Your task to perform on an android device: Open Youtube and go to "Your channel" Image 0: 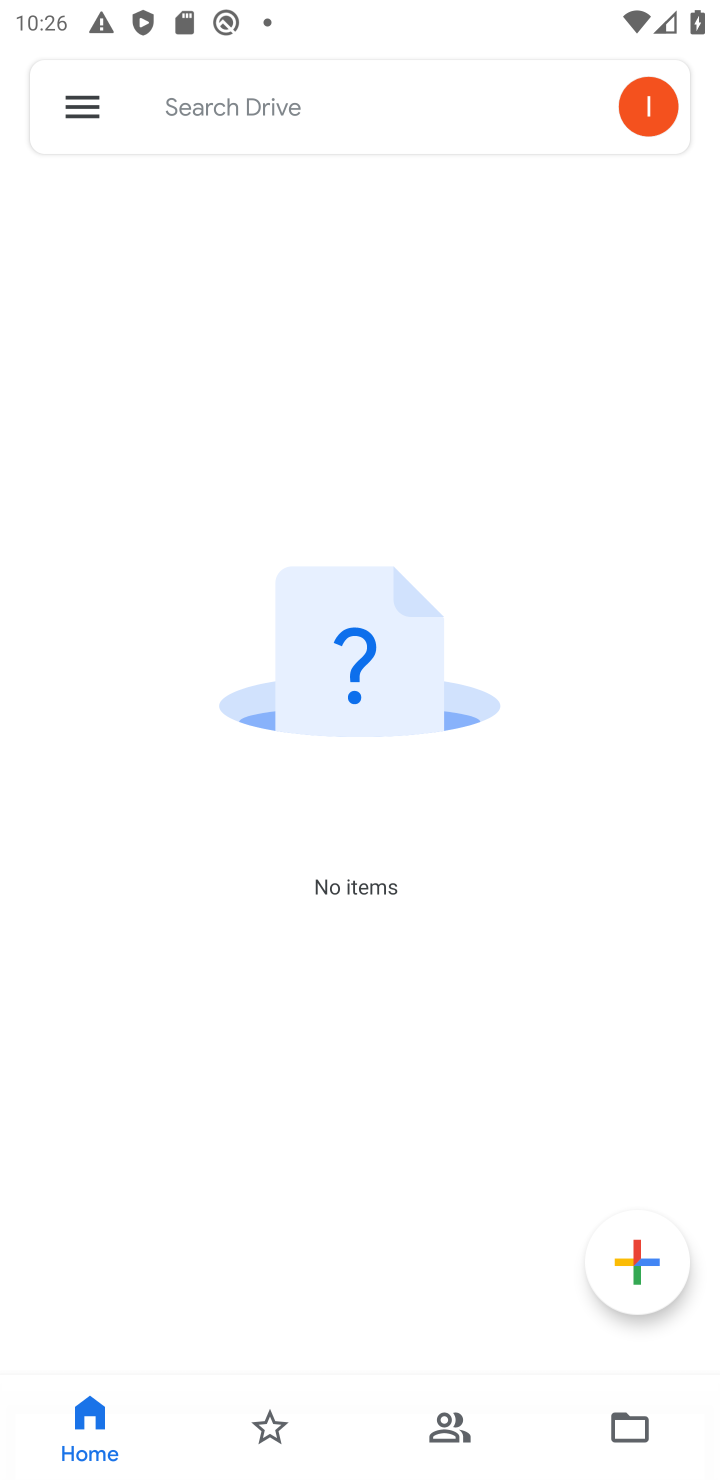
Step 0: press home button
Your task to perform on an android device: Open Youtube and go to "Your channel" Image 1: 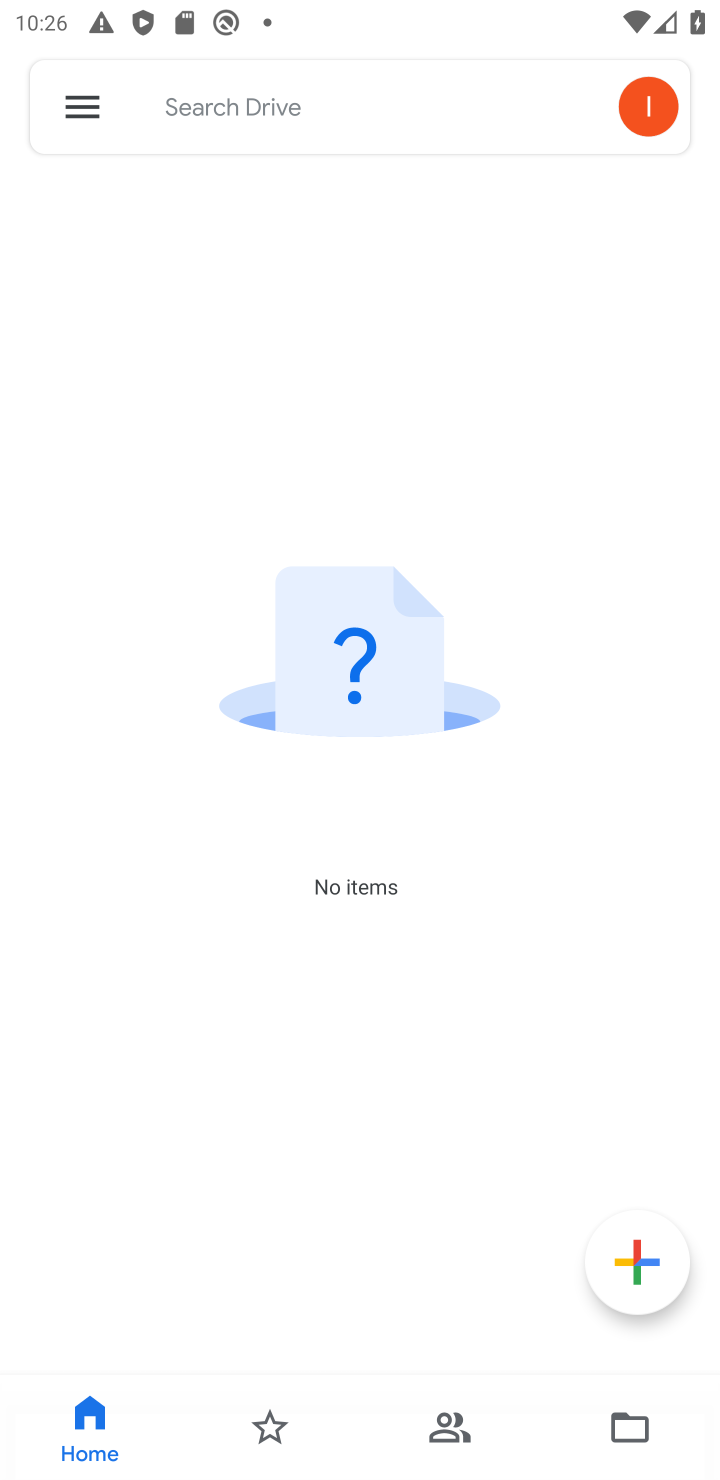
Step 1: press home button
Your task to perform on an android device: Open Youtube and go to "Your channel" Image 2: 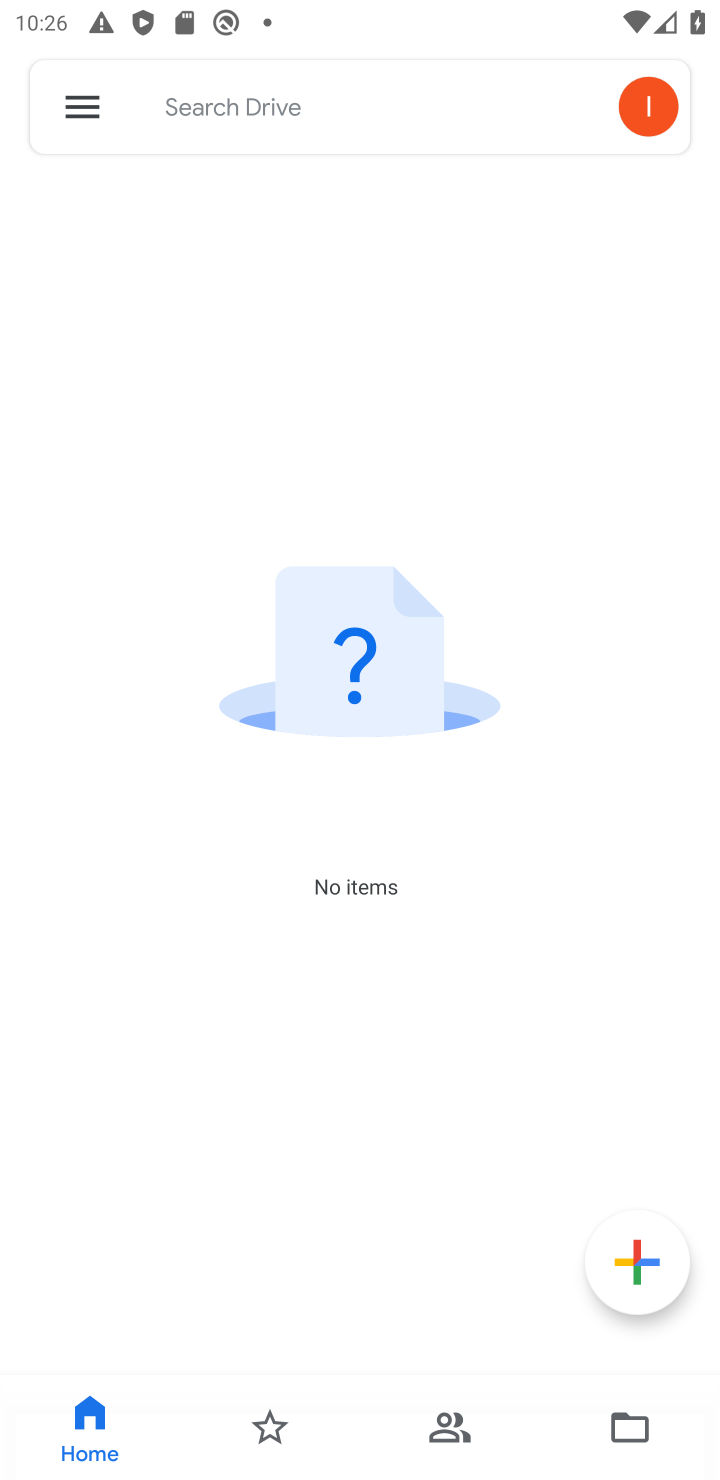
Step 2: drag from (529, 416) to (531, 283)
Your task to perform on an android device: Open Youtube and go to "Your channel" Image 3: 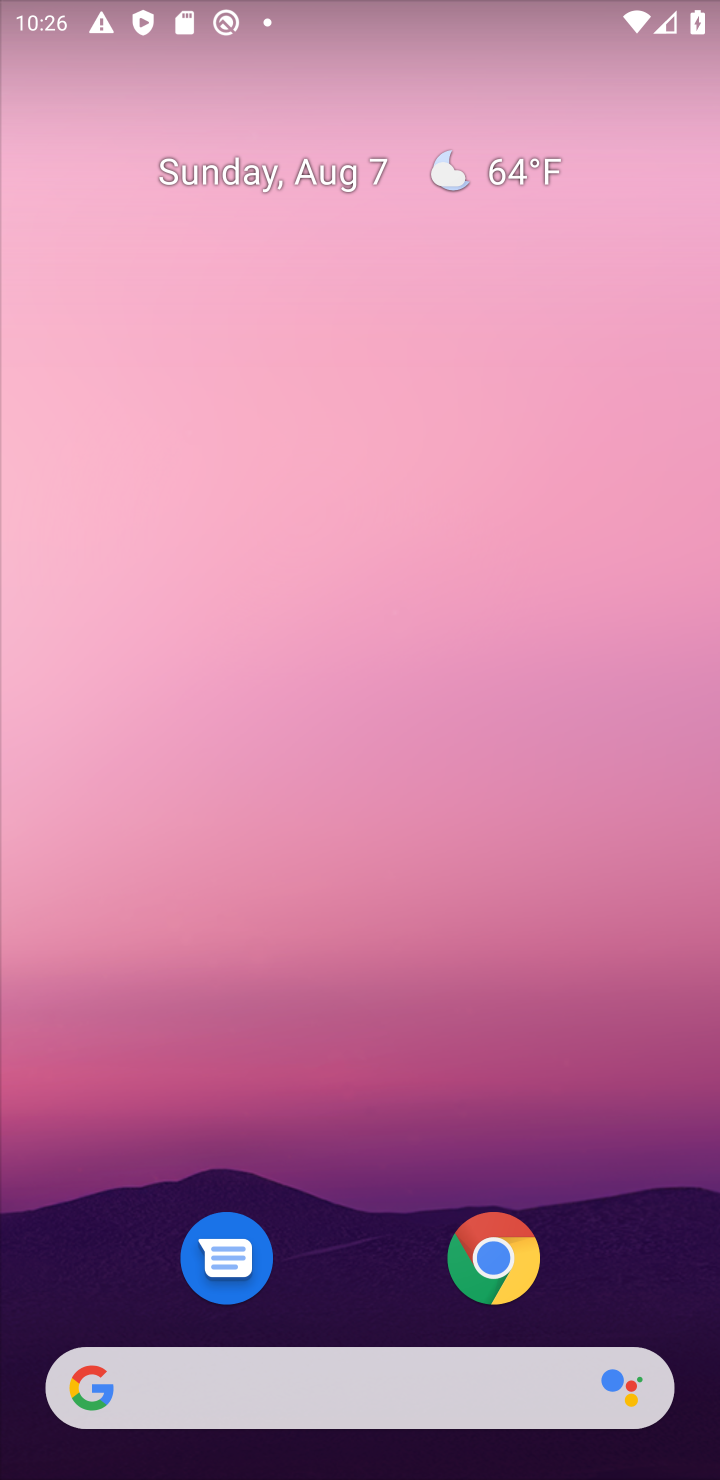
Step 3: drag from (414, 1321) to (470, 139)
Your task to perform on an android device: Open Youtube and go to "Your channel" Image 4: 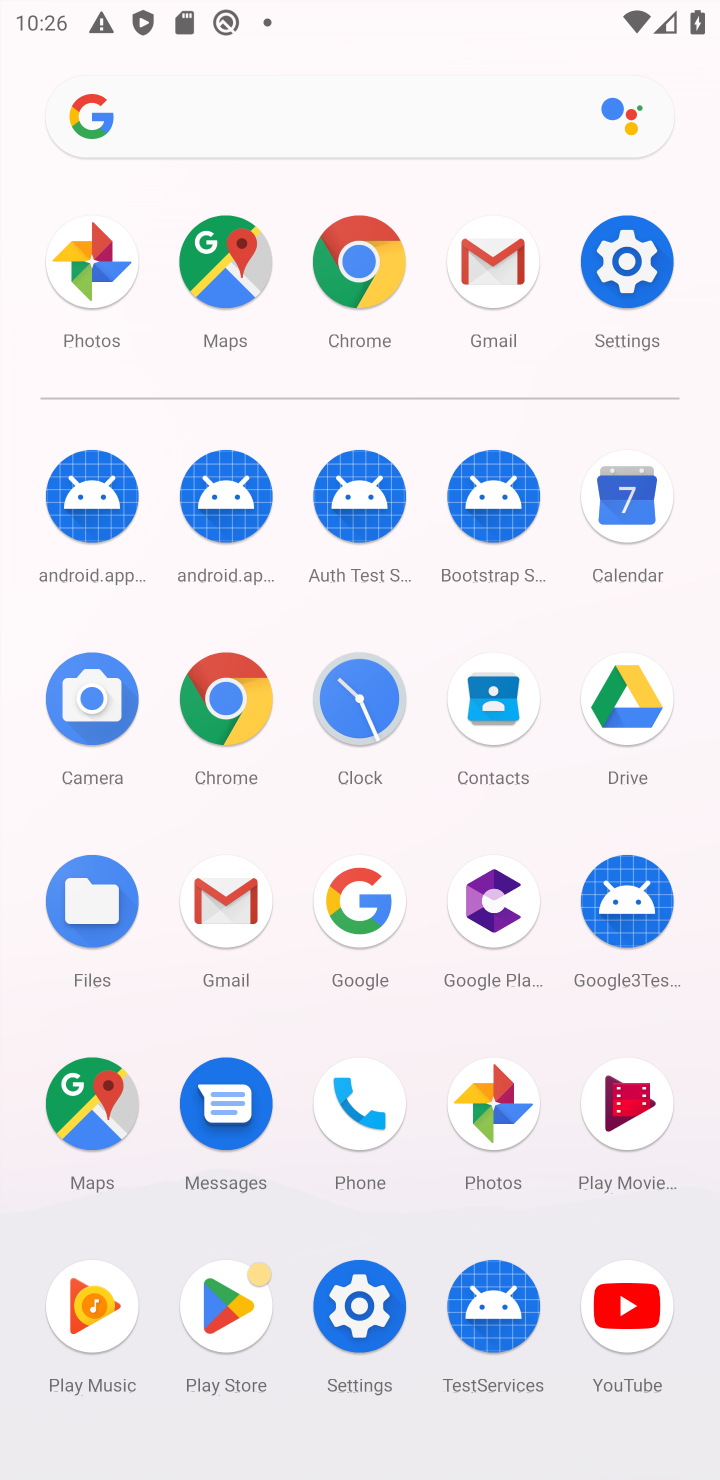
Step 4: click (645, 1338)
Your task to perform on an android device: Open Youtube and go to "Your channel" Image 5: 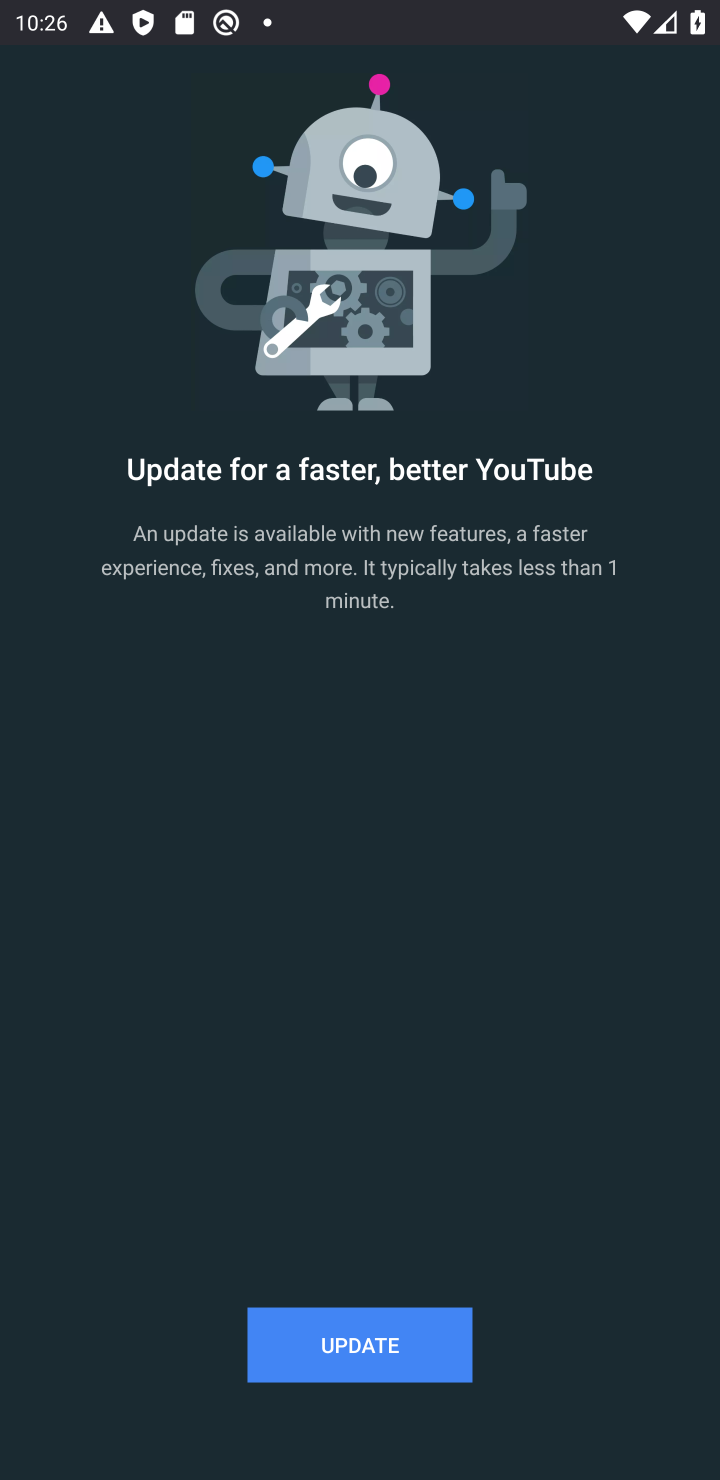
Step 5: click (348, 1364)
Your task to perform on an android device: Open Youtube and go to "Your channel" Image 6: 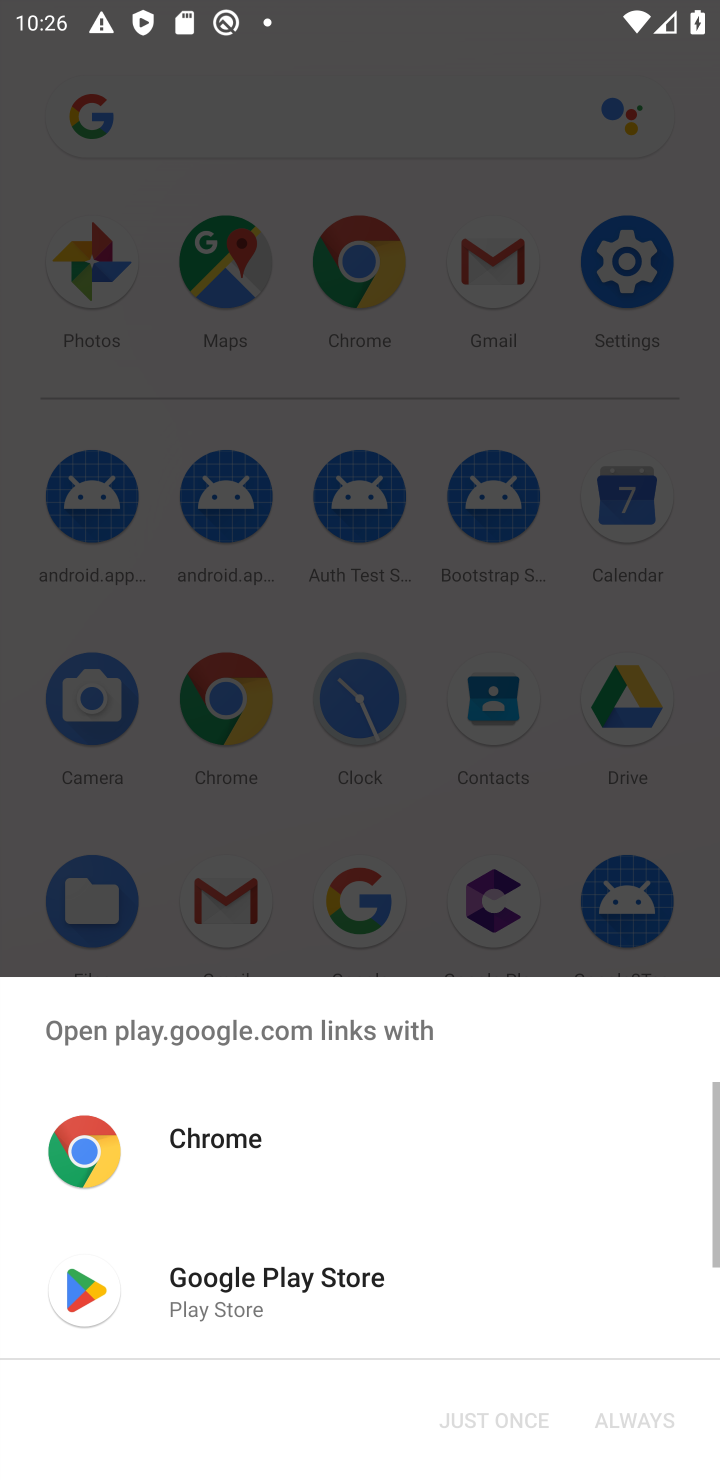
Step 6: click (271, 1266)
Your task to perform on an android device: Open Youtube and go to "Your channel" Image 7: 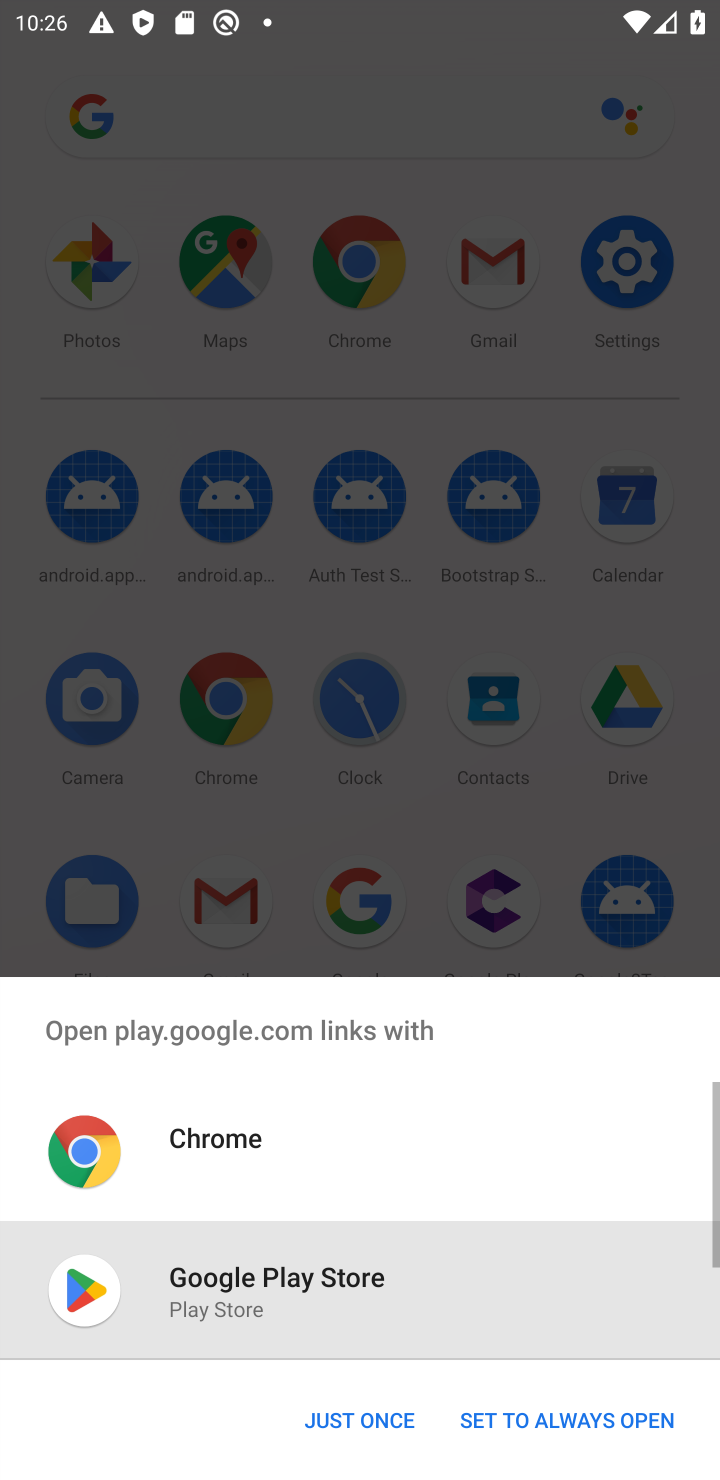
Step 7: click (356, 1425)
Your task to perform on an android device: Open Youtube and go to "Your channel" Image 8: 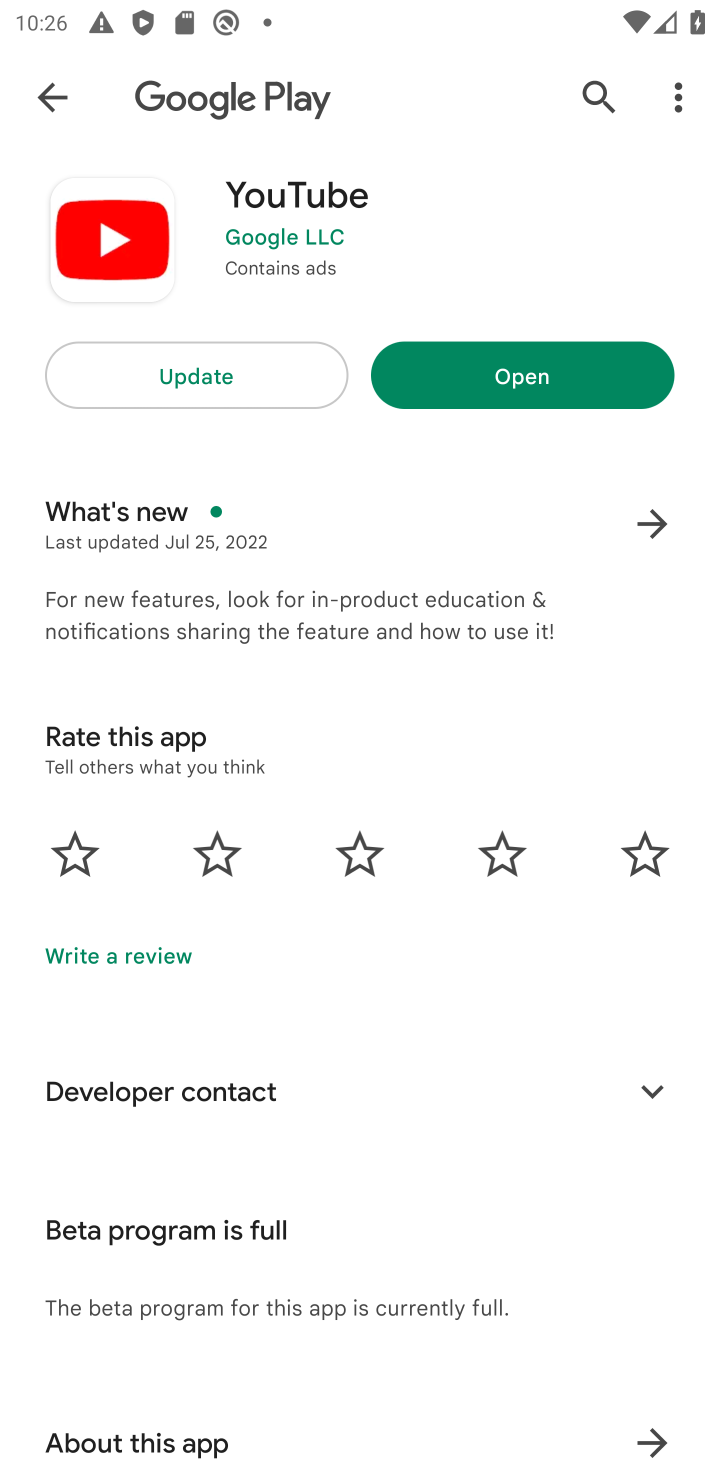
Step 8: drag from (545, 376) to (677, 869)
Your task to perform on an android device: Open Youtube and go to "Your channel" Image 9: 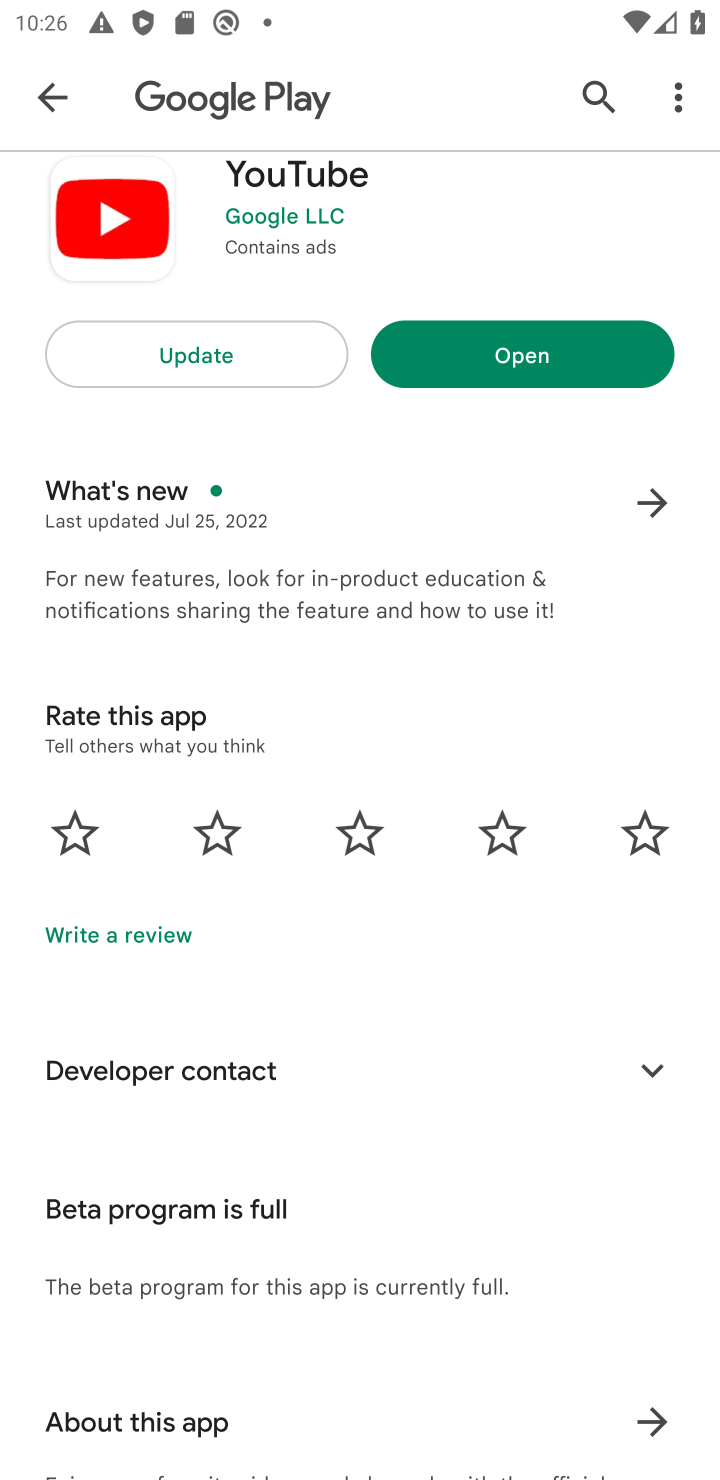
Step 9: click (163, 386)
Your task to perform on an android device: Open Youtube and go to "Your channel" Image 10: 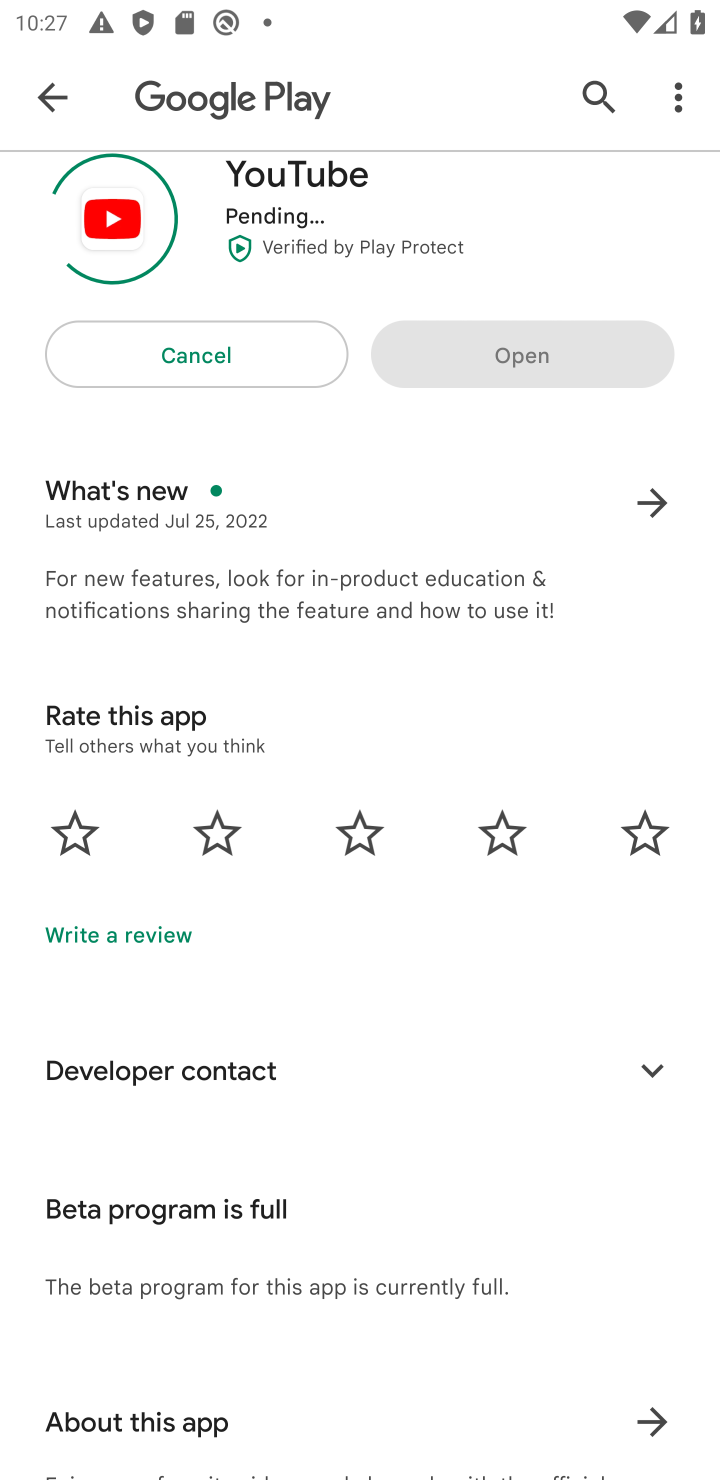
Step 10: click (577, 351)
Your task to perform on an android device: Open Youtube and go to "Your channel" Image 11: 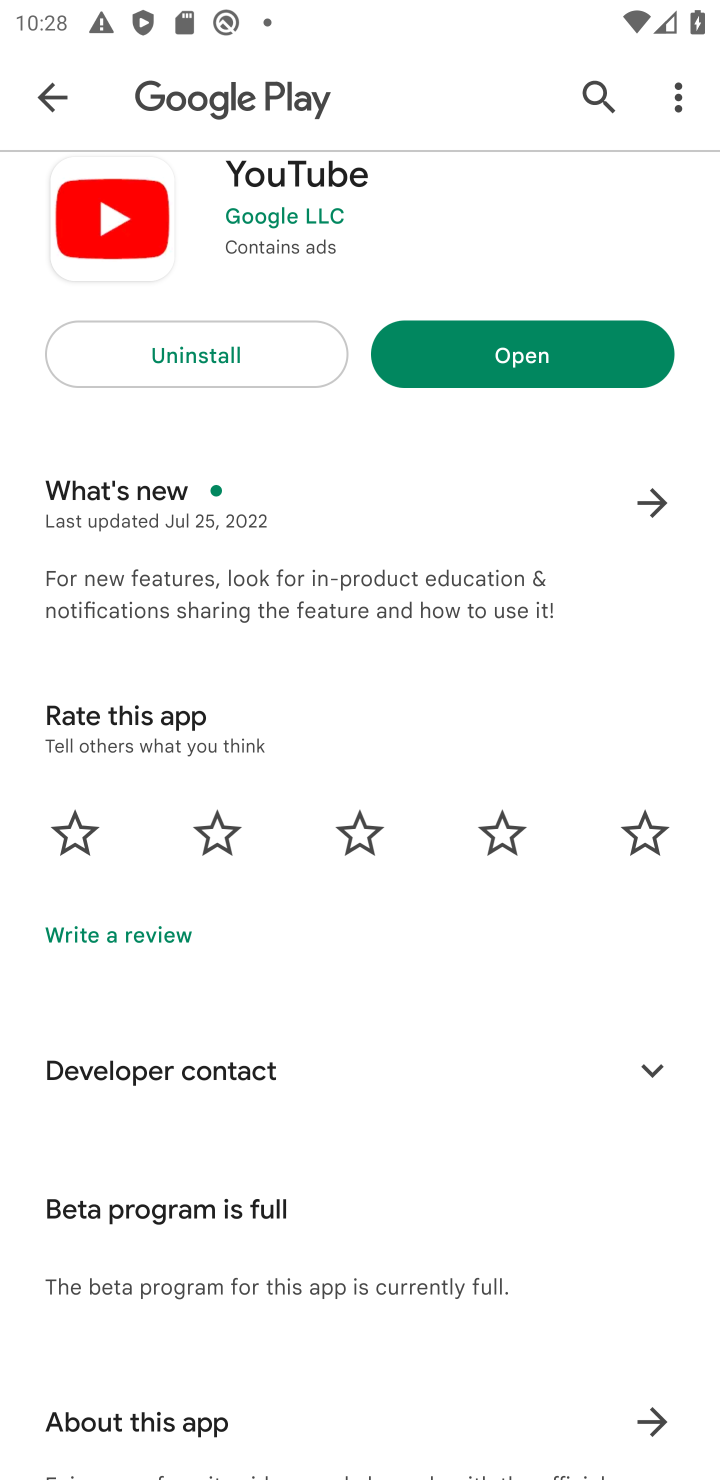
Step 11: click (583, 379)
Your task to perform on an android device: Open Youtube and go to "Your channel" Image 12: 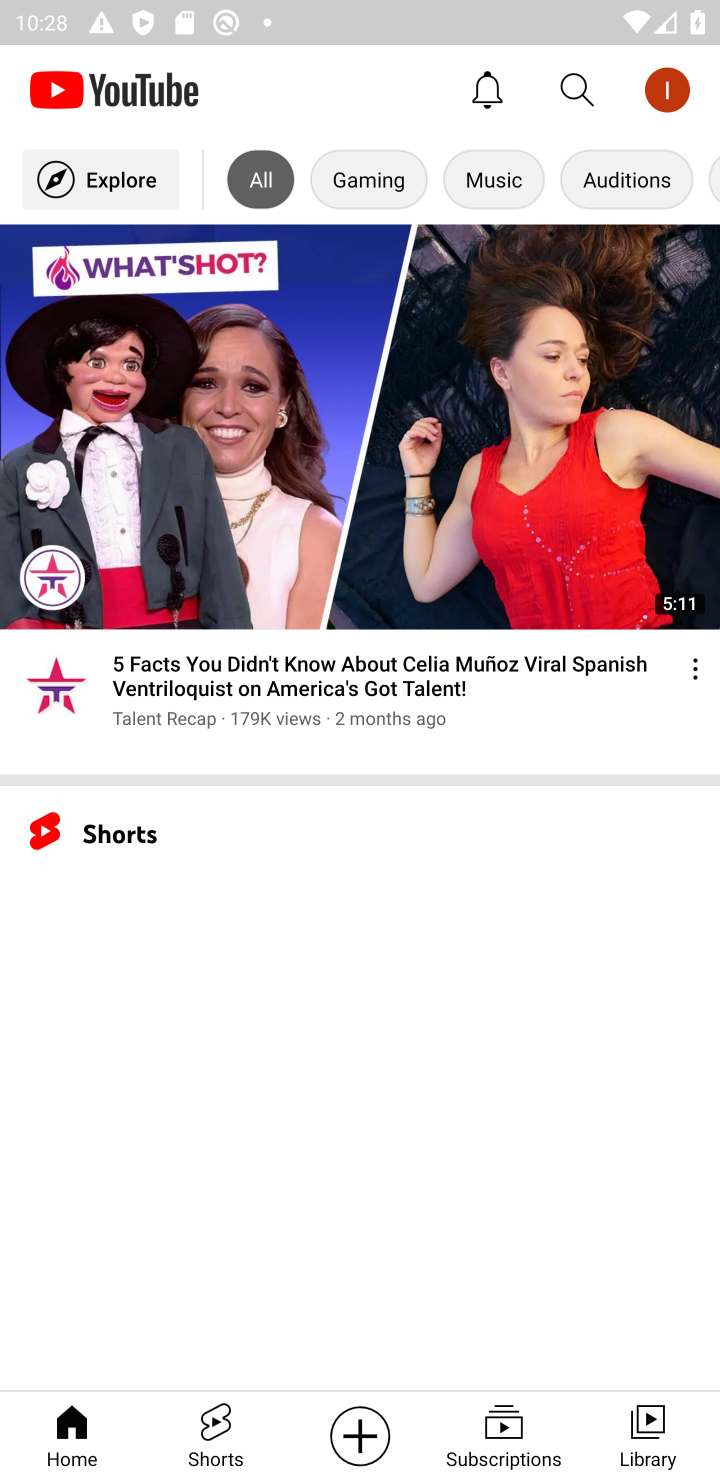
Step 12: click (665, 95)
Your task to perform on an android device: Open Youtube and go to "Your channel" Image 13: 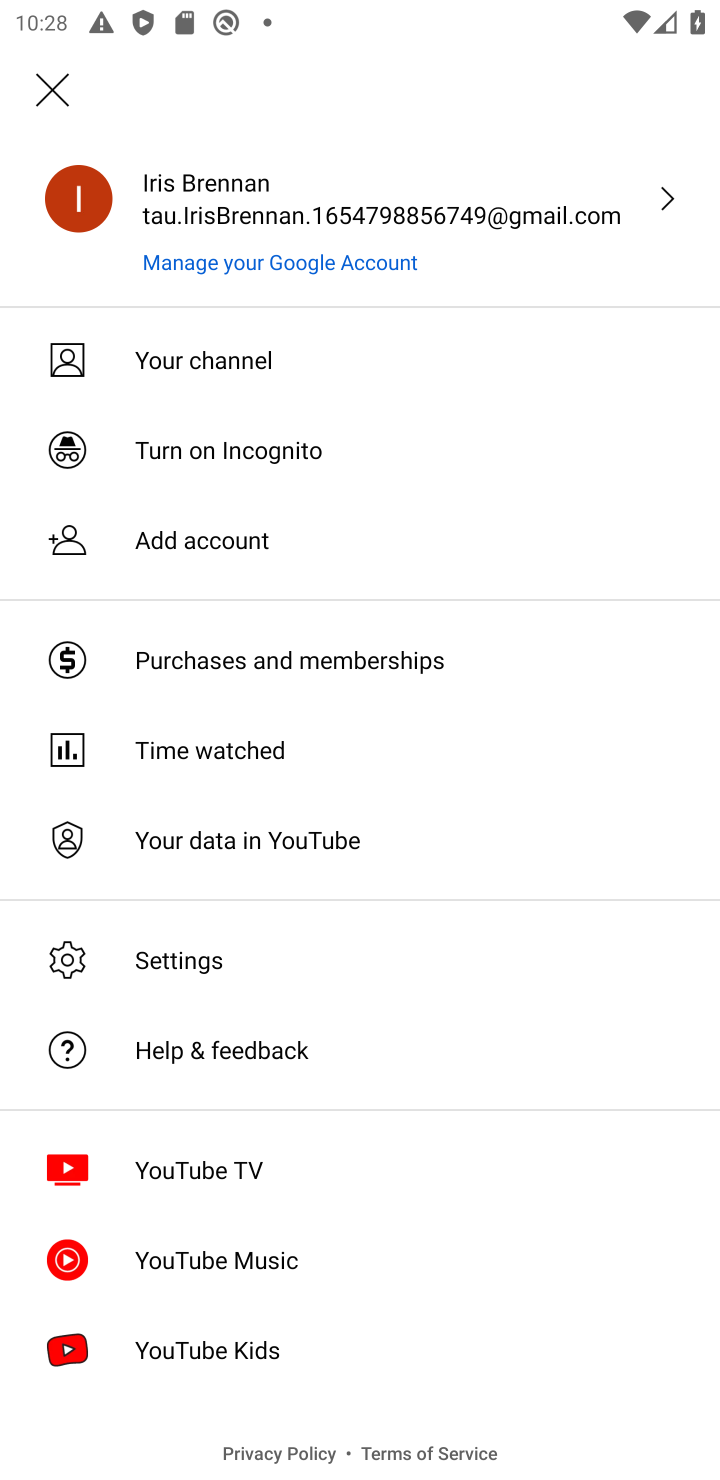
Step 13: click (229, 352)
Your task to perform on an android device: Open Youtube and go to "Your channel" Image 14: 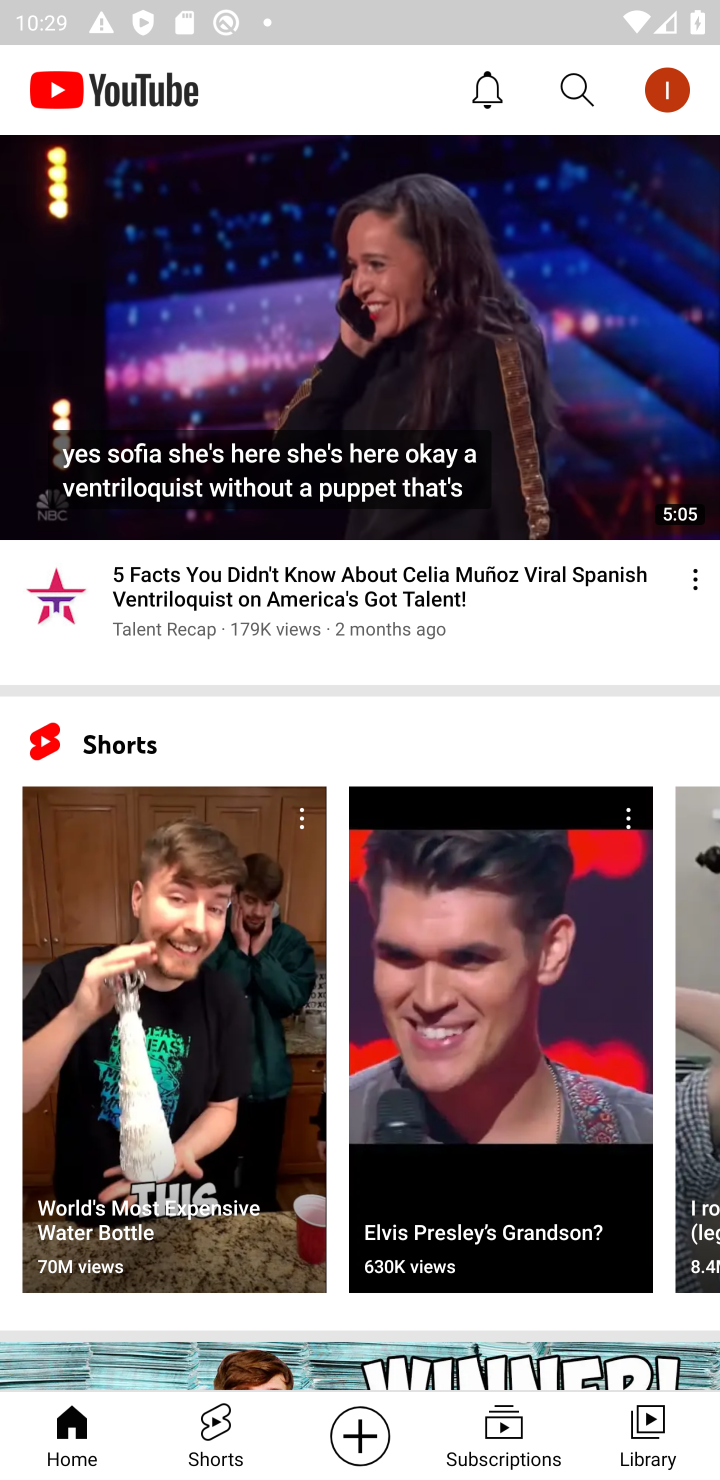
Step 14: click (659, 85)
Your task to perform on an android device: Open Youtube and go to "Your channel" Image 15: 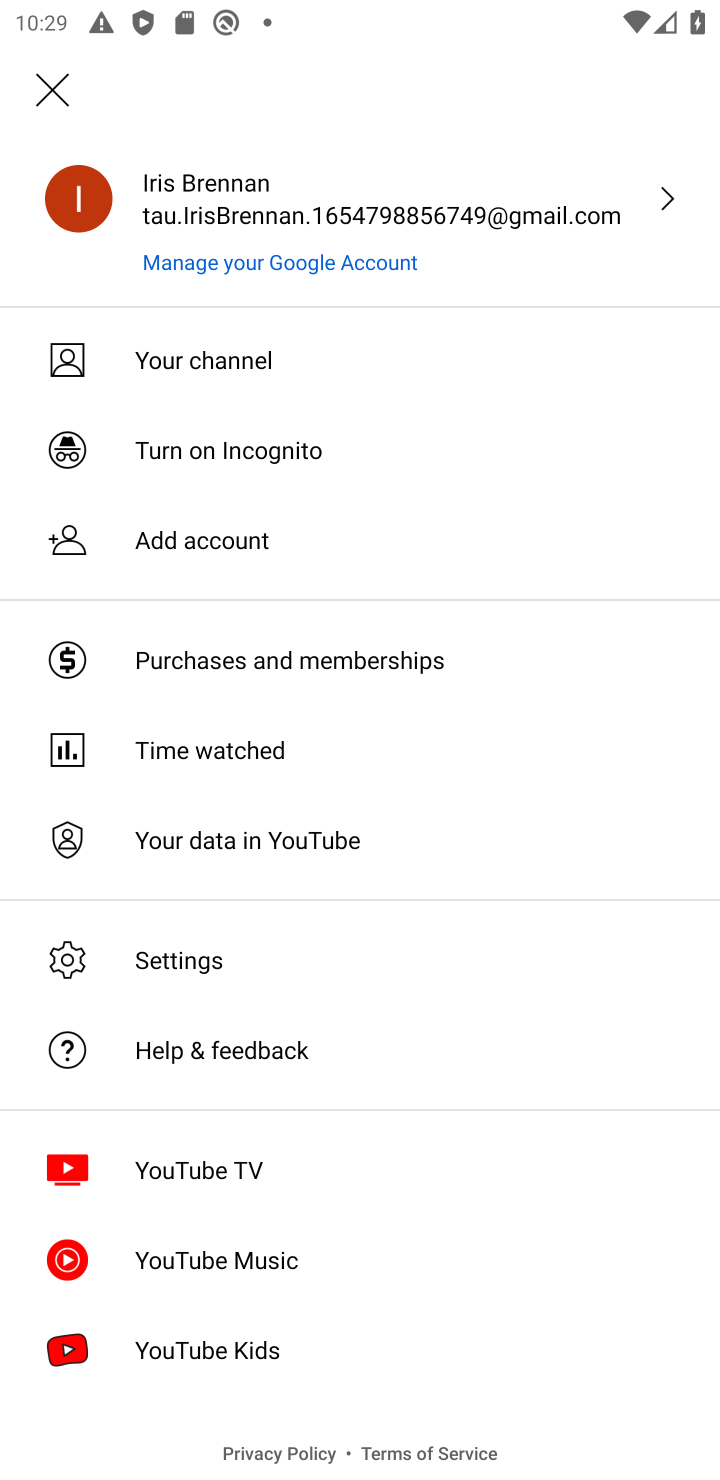
Step 15: click (122, 360)
Your task to perform on an android device: Open Youtube and go to "Your channel" Image 16: 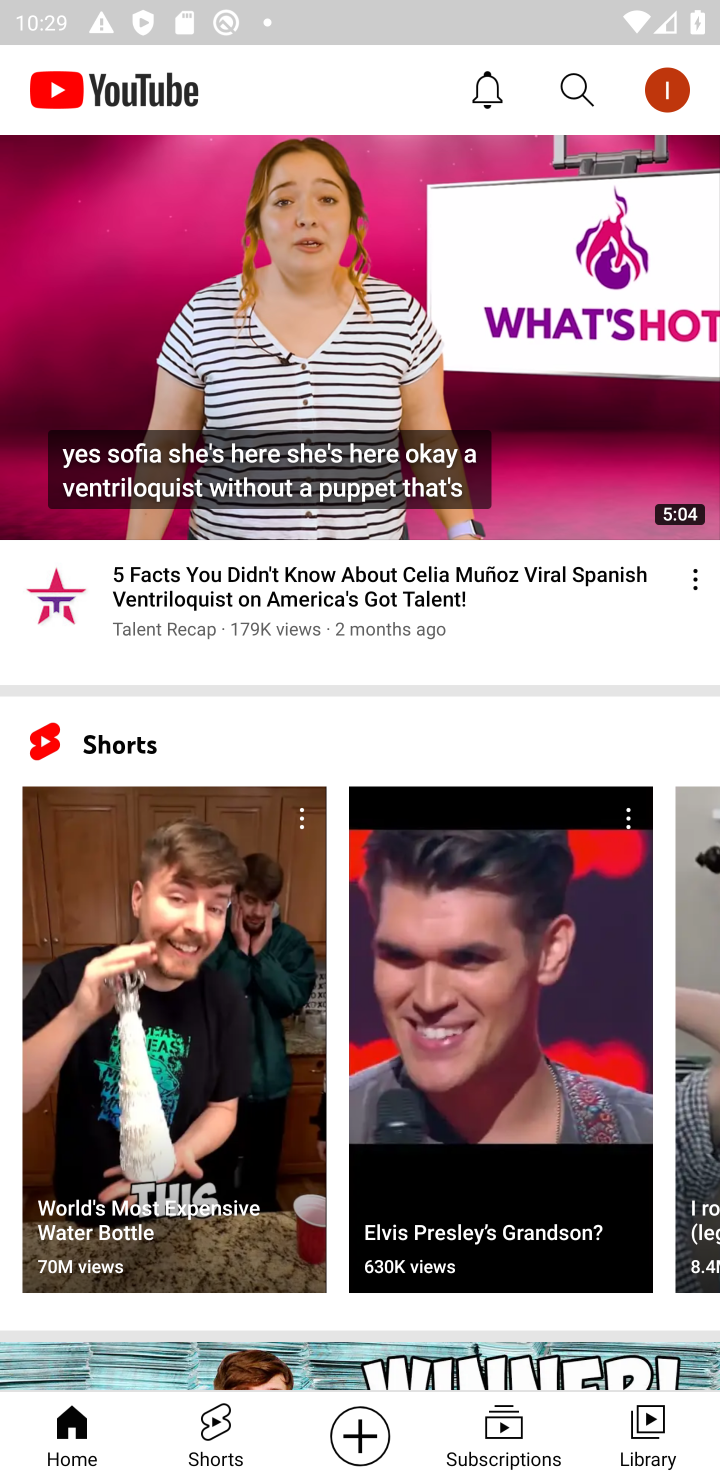
Step 16: task complete